Your task to perform on an android device: Open Google Image 0: 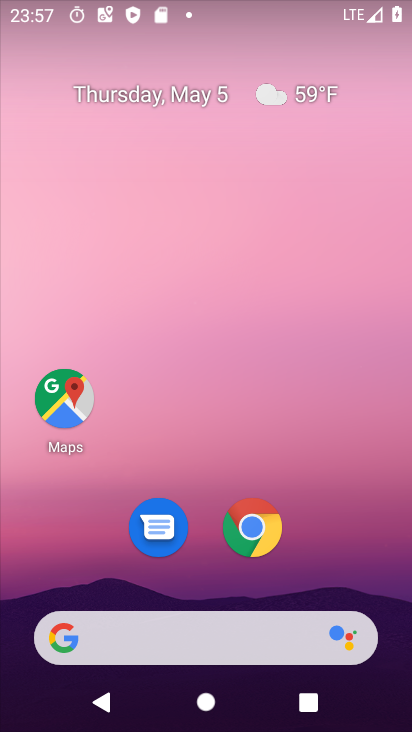
Step 0: click (63, 634)
Your task to perform on an android device: Open Google Image 1: 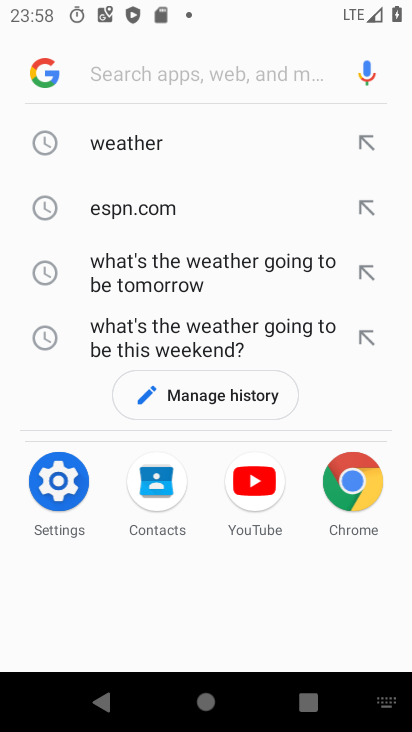
Step 1: click (48, 62)
Your task to perform on an android device: Open Google Image 2: 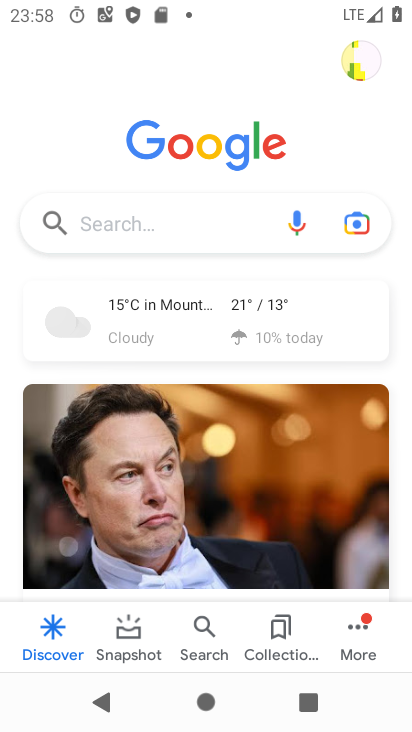
Step 2: task complete